Your task to perform on an android device: Find coffee shops on Maps Image 0: 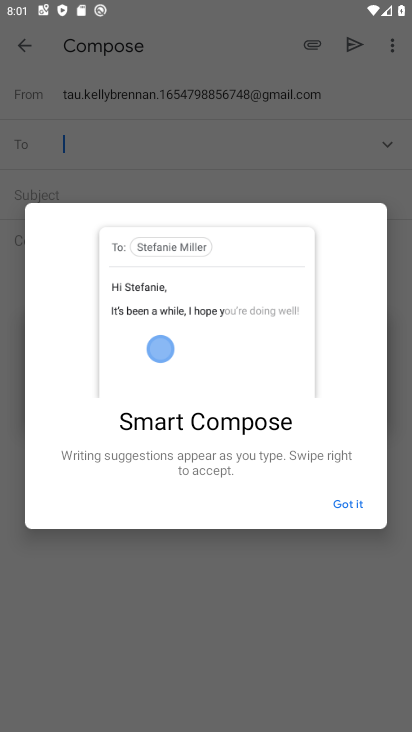
Step 0: press home button
Your task to perform on an android device: Find coffee shops on Maps Image 1: 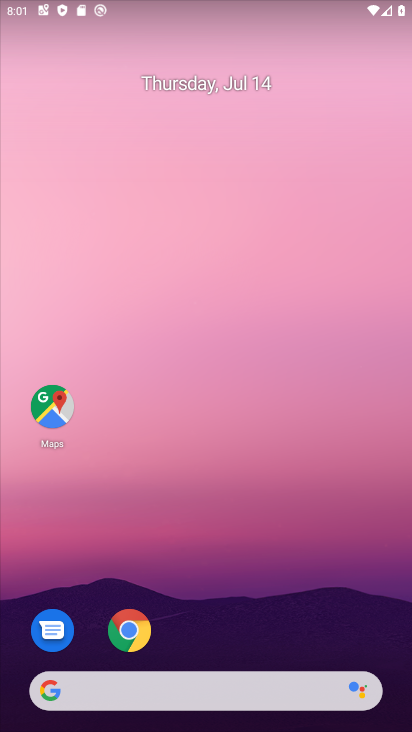
Step 1: click (55, 403)
Your task to perform on an android device: Find coffee shops on Maps Image 2: 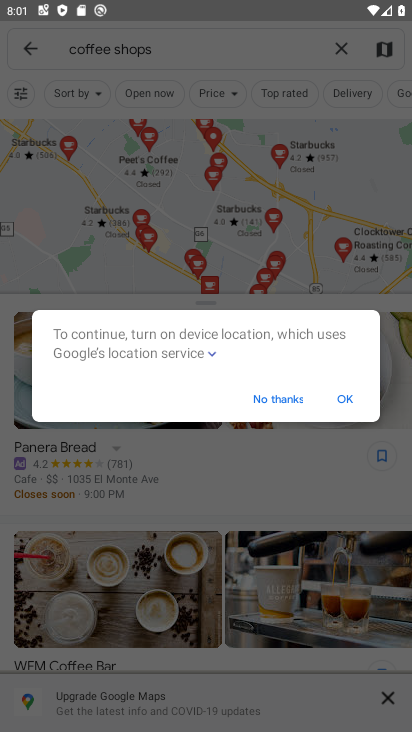
Step 2: task complete